Your task to perform on an android device: delete a single message in the gmail app Image 0: 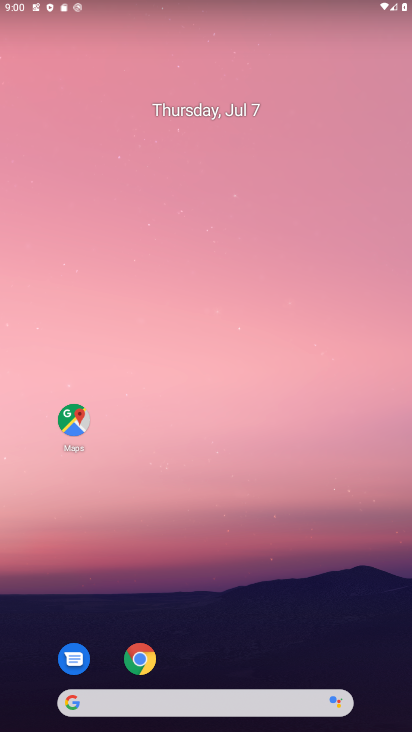
Step 0: drag from (246, 656) to (314, 0)
Your task to perform on an android device: delete a single message in the gmail app Image 1: 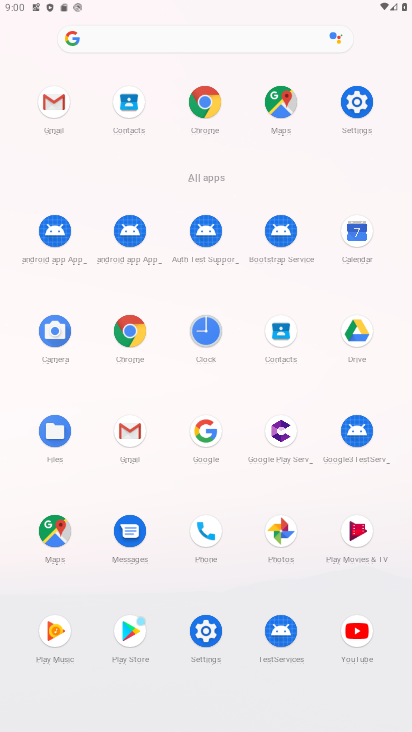
Step 1: click (129, 437)
Your task to perform on an android device: delete a single message in the gmail app Image 2: 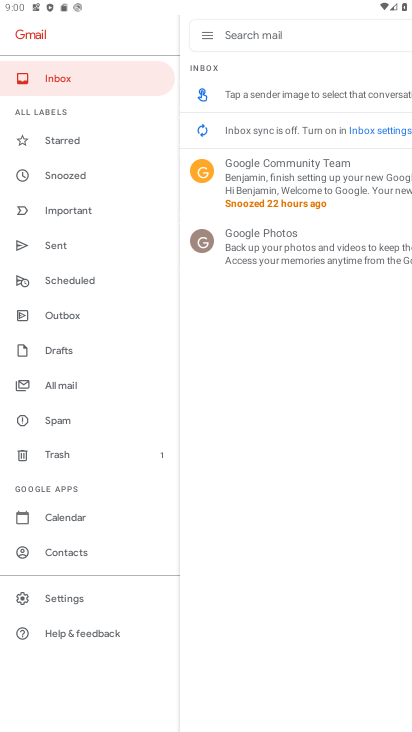
Step 2: click (205, 248)
Your task to perform on an android device: delete a single message in the gmail app Image 3: 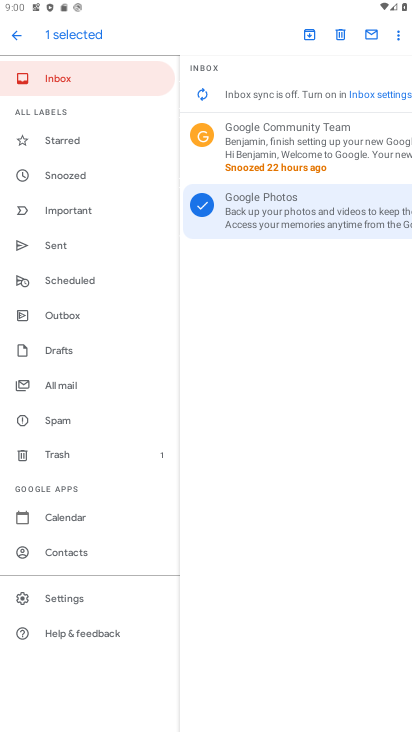
Step 3: click (340, 33)
Your task to perform on an android device: delete a single message in the gmail app Image 4: 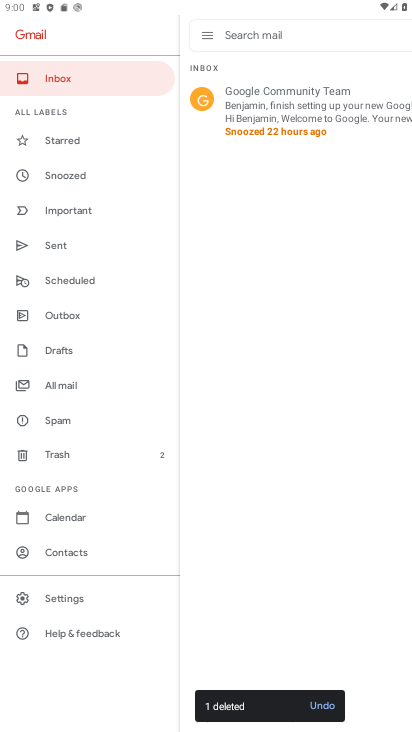
Step 4: task complete